Your task to perform on an android device: turn on notifications settings in the gmail app Image 0: 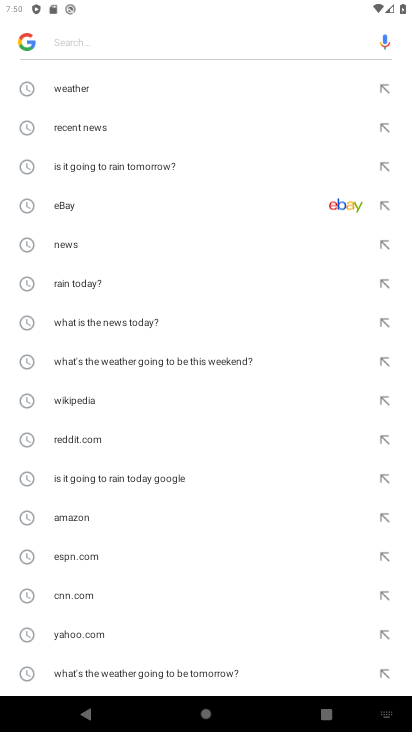
Step 0: press home button
Your task to perform on an android device: turn on notifications settings in the gmail app Image 1: 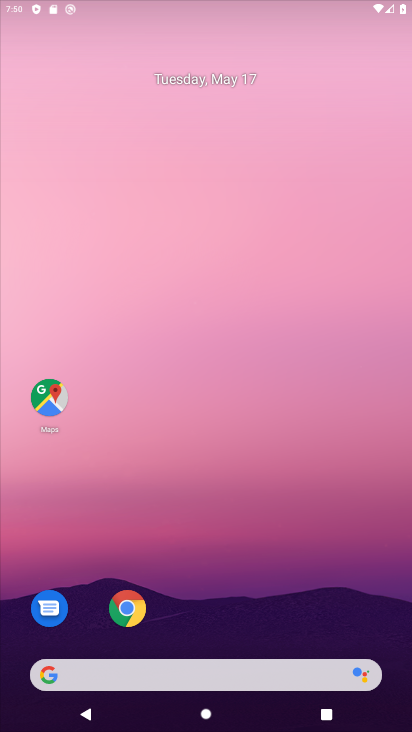
Step 1: drag from (297, 575) to (290, 203)
Your task to perform on an android device: turn on notifications settings in the gmail app Image 2: 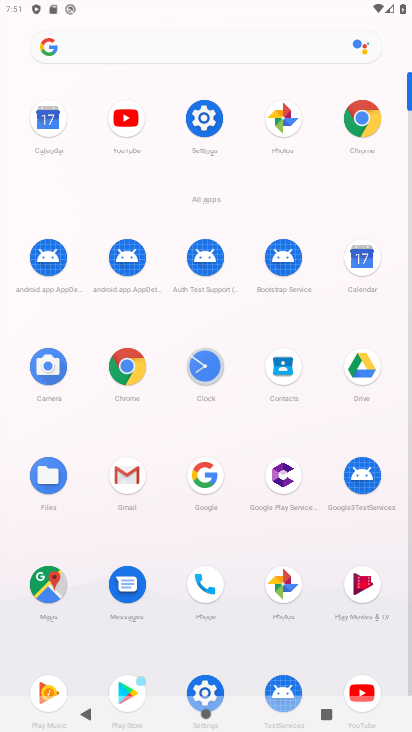
Step 2: click (115, 475)
Your task to perform on an android device: turn on notifications settings in the gmail app Image 3: 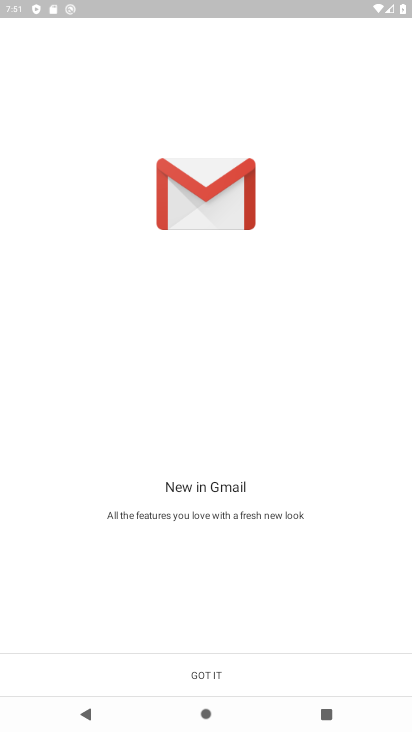
Step 3: click (209, 675)
Your task to perform on an android device: turn on notifications settings in the gmail app Image 4: 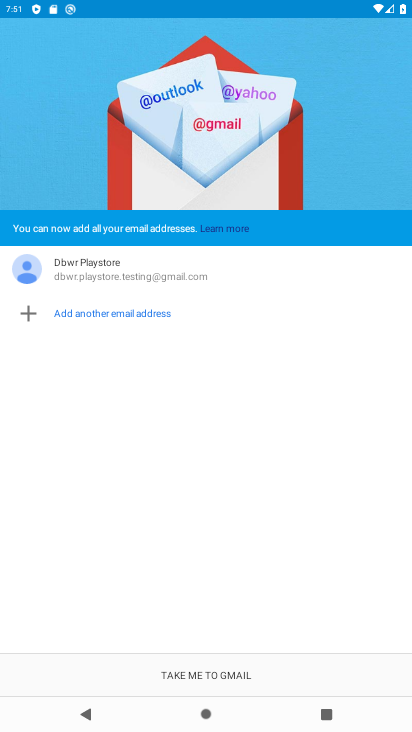
Step 4: click (230, 683)
Your task to perform on an android device: turn on notifications settings in the gmail app Image 5: 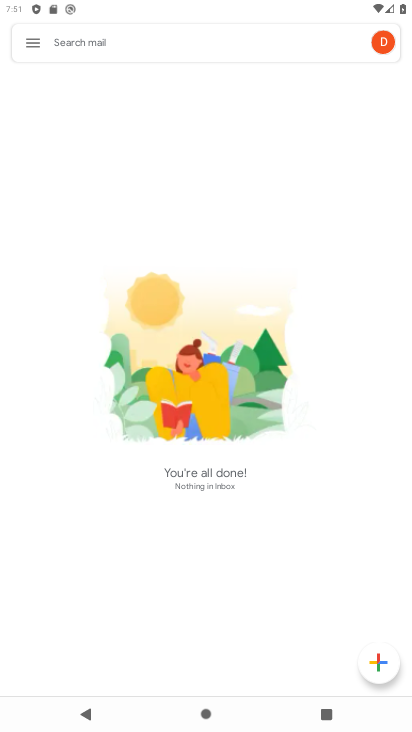
Step 5: click (40, 46)
Your task to perform on an android device: turn on notifications settings in the gmail app Image 6: 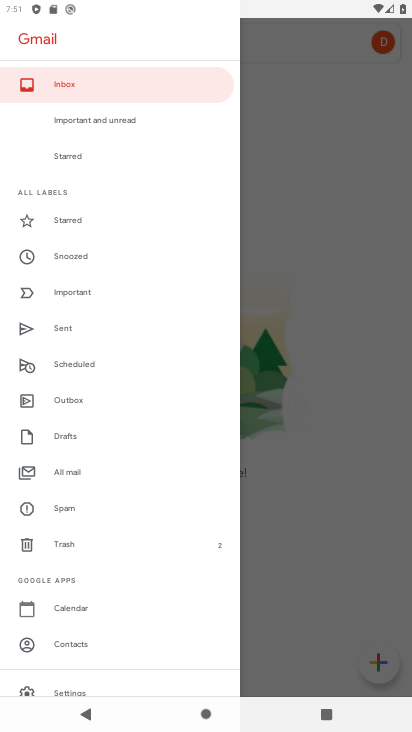
Step 6: drag from (138, 633) to (157, 261)
Your task to perform on an android device: turn on notifications settings in the gmail app Image 7: 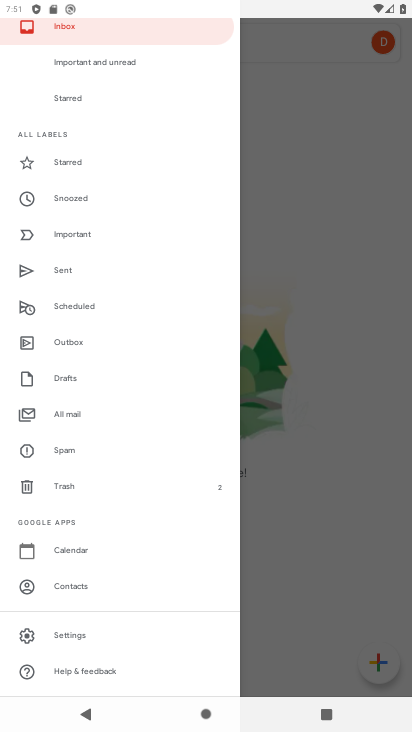
Step 7: click (77, 636)
Your task to perform on an android device: turn on notifications settings in the gmail app Image 8: 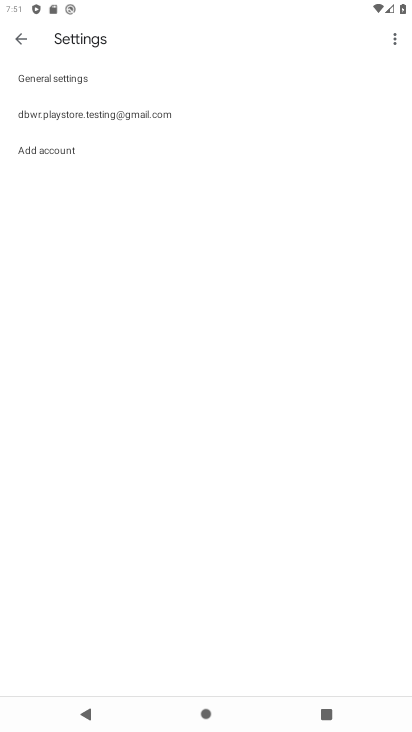
Step 8: click (150, 112)
Your task to perform on an android device: turn on notifications settings in the gmail app Image 9: 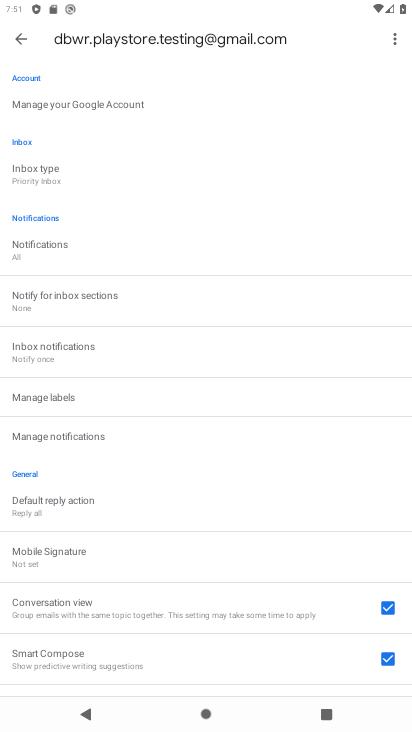
Step 9: click (85, 249)
Your task to perform on an android device: turn on notifications settings in the gmail app Image 10: 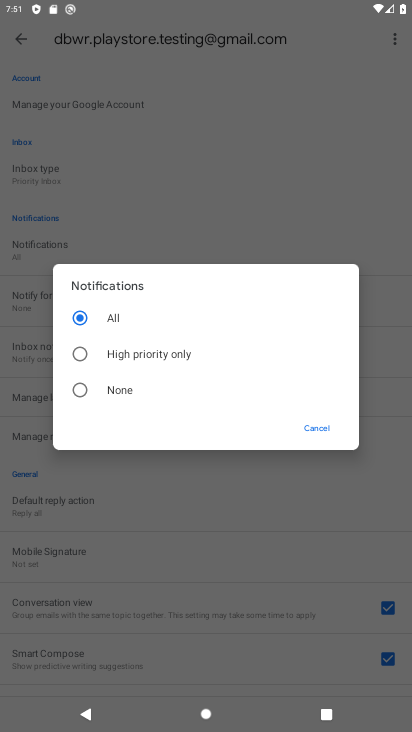
Step 10: task complete